Your task to perform on an android device: Open Android settings Image 0: 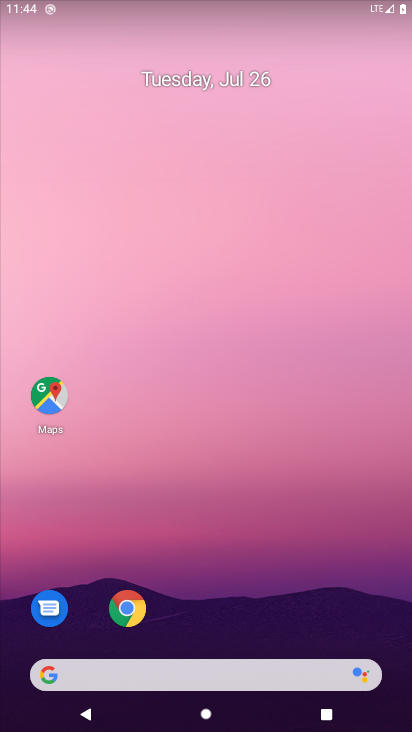
Step 0: press home button
Your task to perform on an android device: Open Android settings Image 1: 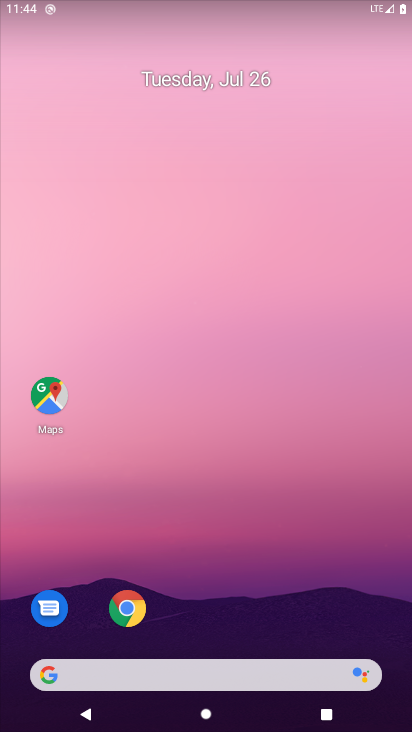
Step 1: drag from (253, 559) to (272, 77)
Your task to perform on an android device: Open Android settings Image 2: 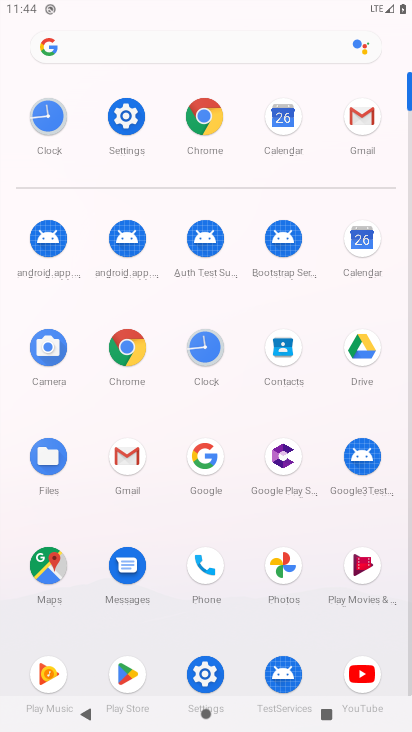
Step 2: click (124, 112)
Your task to perform on an android device: Open Android settings Image 3: 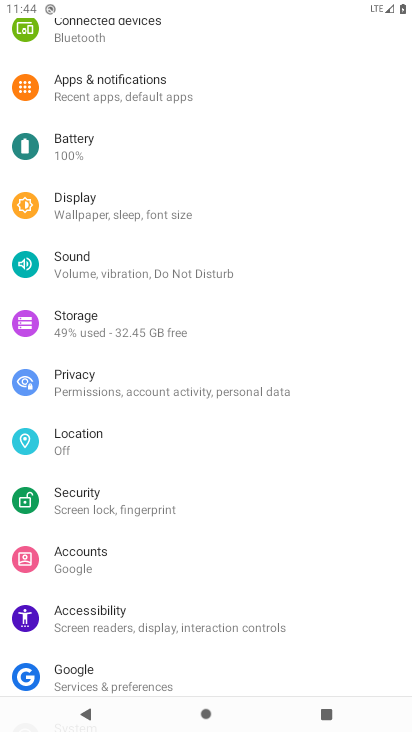
Step 3: task complete